Your task to perform on an android device: Go to Google Image 0: 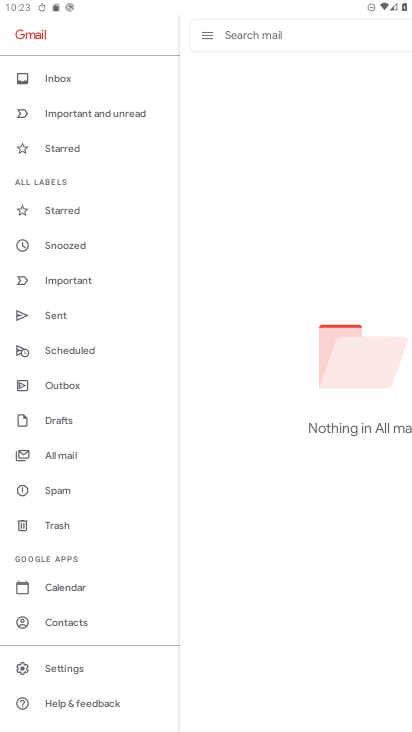
Step 0: press home button
Your task to perform on an android device: Go to Google Image 1: 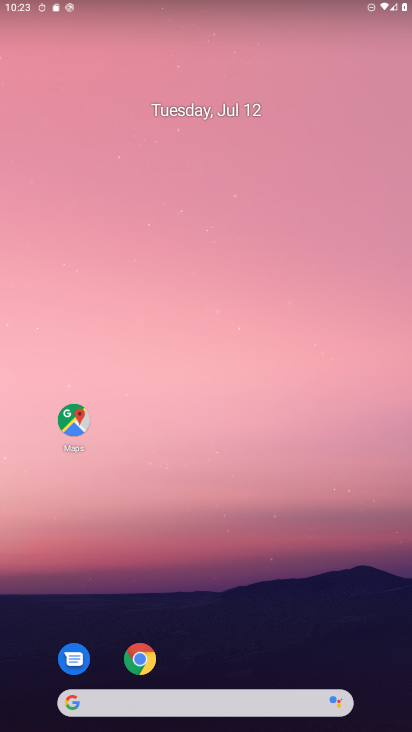
Step 1: drag from (225, 716) to (225, 151)
Your task to perform on an android device: Go to Google Image 2: 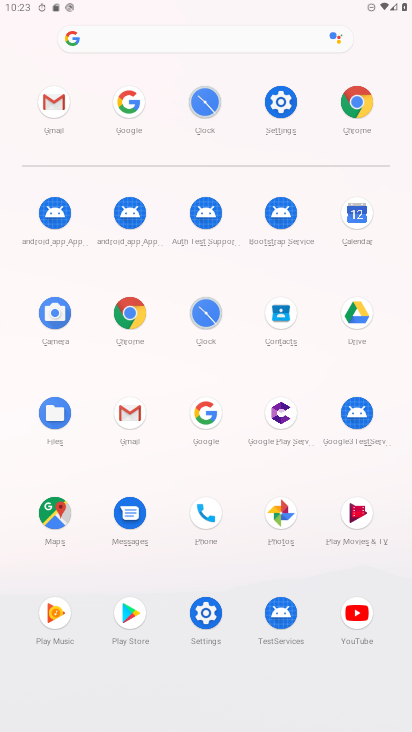
Step 2: click (205, 416)
Your task to perform on an android device: Go to Google Image 3: 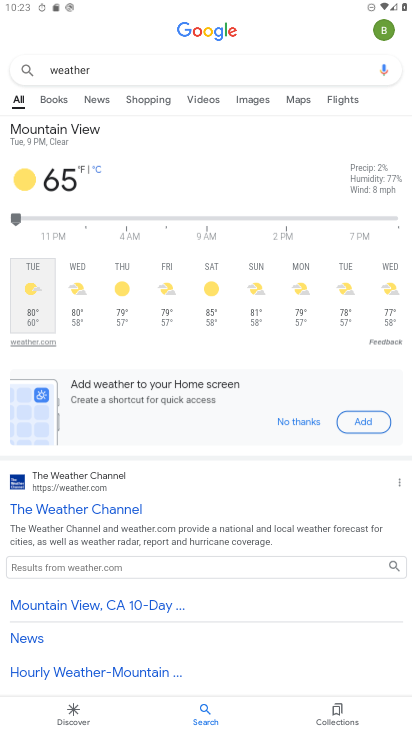
Step 3: task complete